Your task to perform on an android device: turn vacation reply on in the gmail app Image 0: 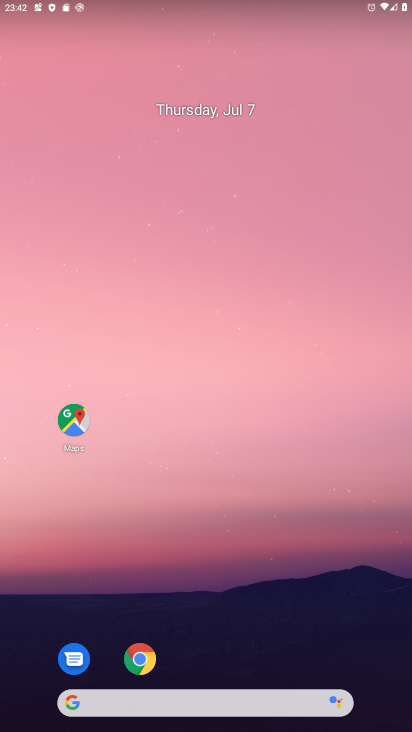
Step 0: drag from (192, 658) to (286, 70)
Your task to perform on an android device: turn vacation reply on in the gmail app Image 1: 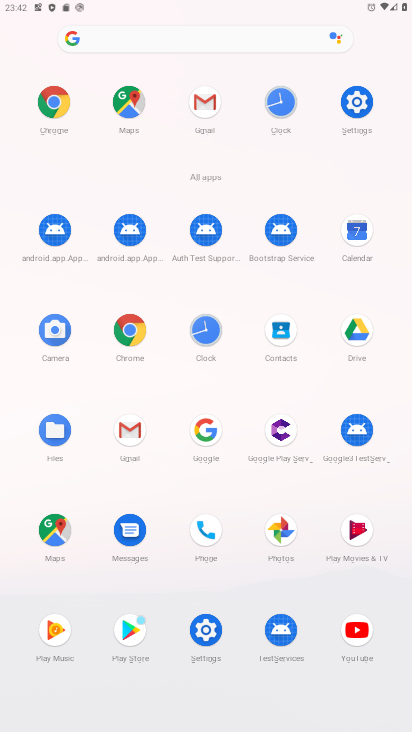
Step 1: click (210, 92)
Your task to perform on an android device: turn vacation reply on in the gmail app Image 2: 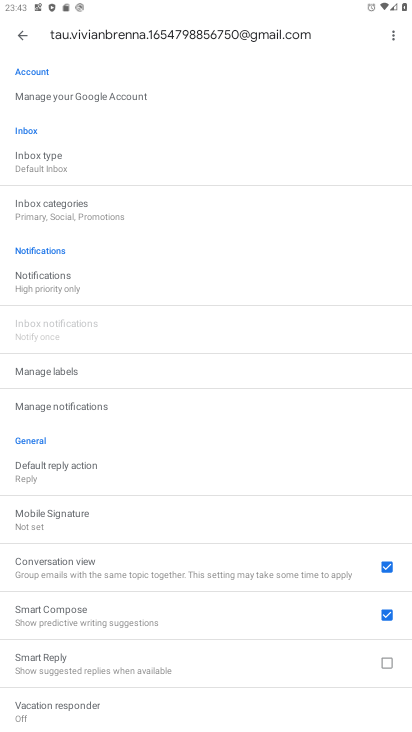
Step 2: click (160, 711)
Your task to perform on an android device: turn vacation reply on in the gmail app Image 3: 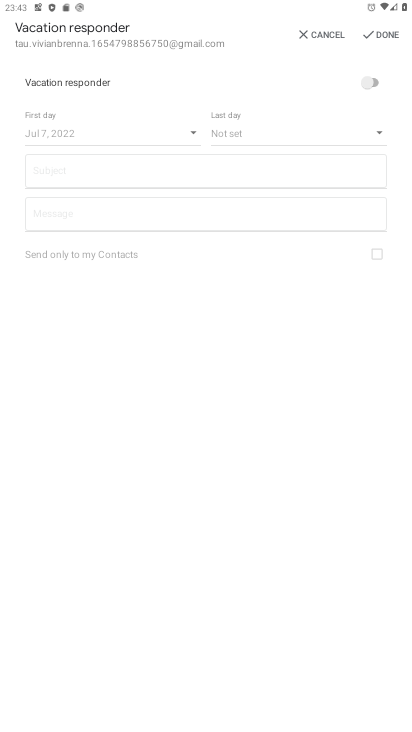
Step 3: click (377, 31)
Your task to perform on an android device: turn vacation reply on in the gmail app Image 4: 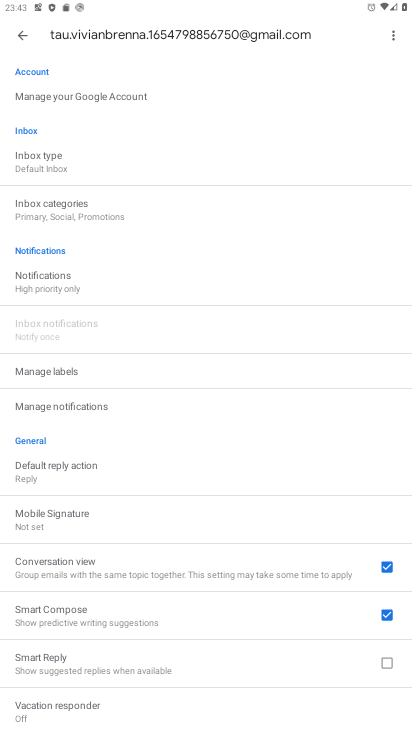
Step 4: click (62, 716)
Your task to perform on an android device: turn vacation reply on in the gmail app Image 5: 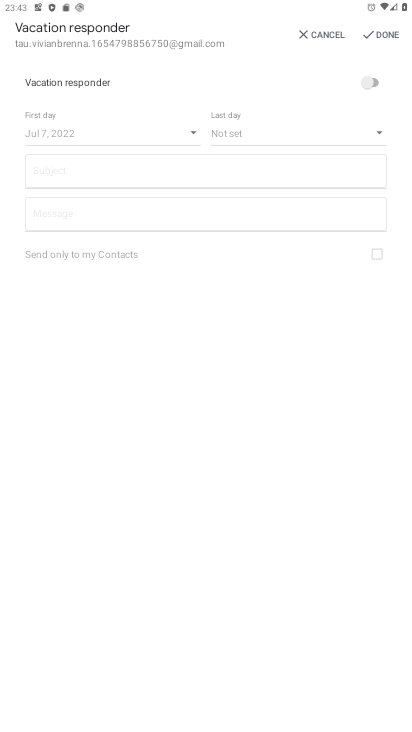
Step 5: click (376, 85)
Your task to perform on an android device: turn vacation reply on in the gmail app Image 6: 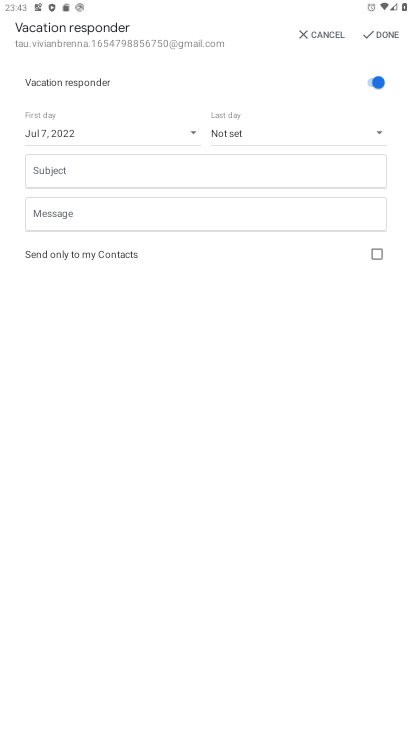
Step 6: click (370, 35)
Your task to perform on an android device: turn vacation reply on in the gmail app Image 7: 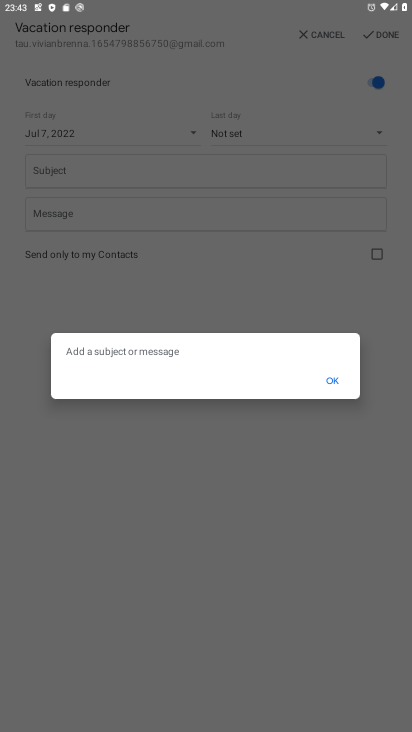
Step 7: task complete